Your task to perform on an android device: Open eBay Image 0: 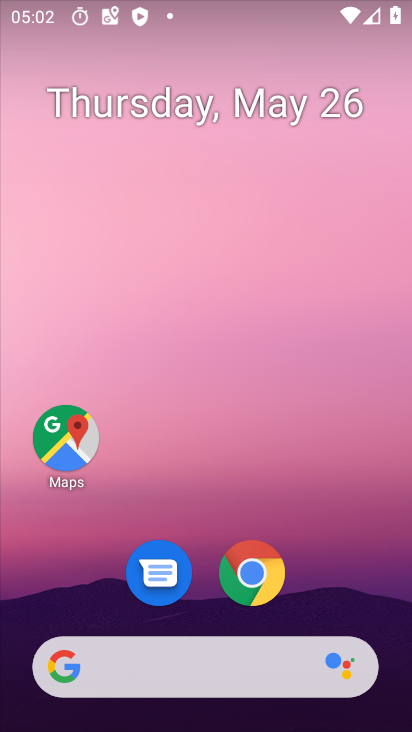
Step 0: click (262, 576)
Your task to perform on an android device: Open eBay Image 1: 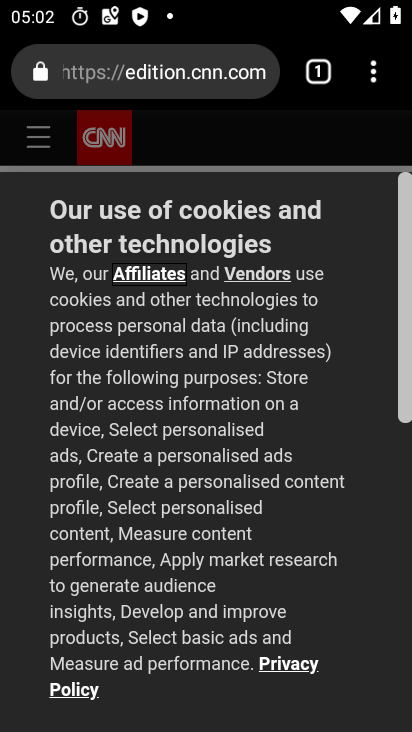
Step 1: press back button
Your task to perform on an android device: Open eBay Image 2: 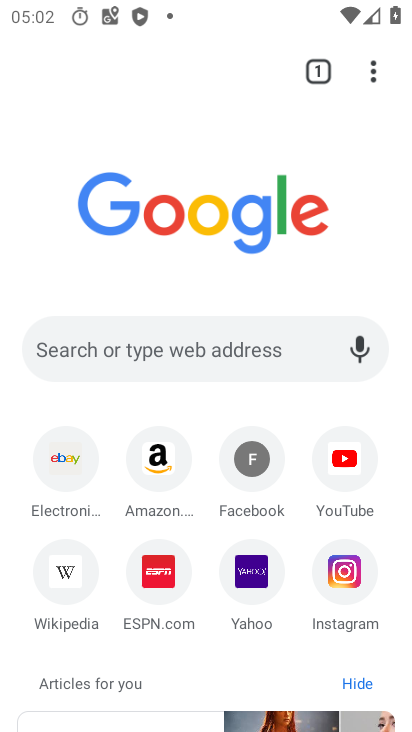
Step 2: click (68, 464)
Your task to perform on an android device: Open eBay Image 3: 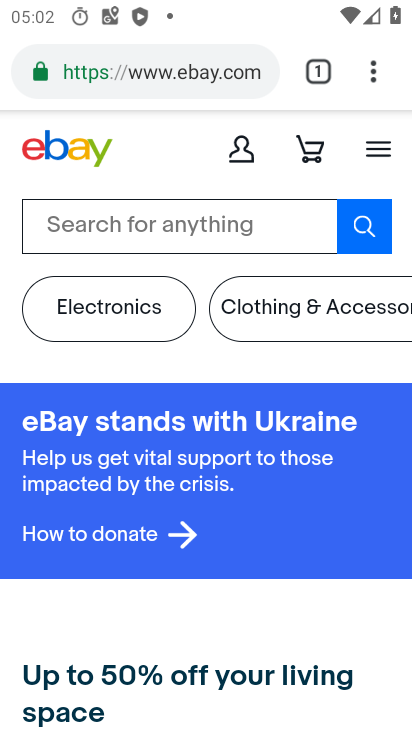
Step 3: task complete